Your task to perform on an android device: Open network settings Image 0: 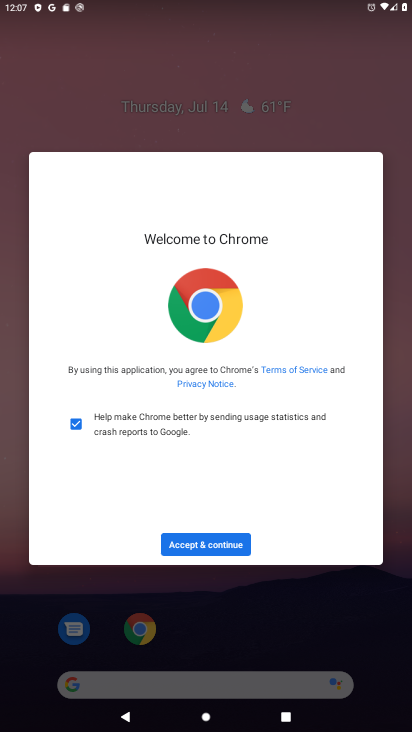
Step 0: press home button
Your task to perform on an android device: Open network settings Image 1: 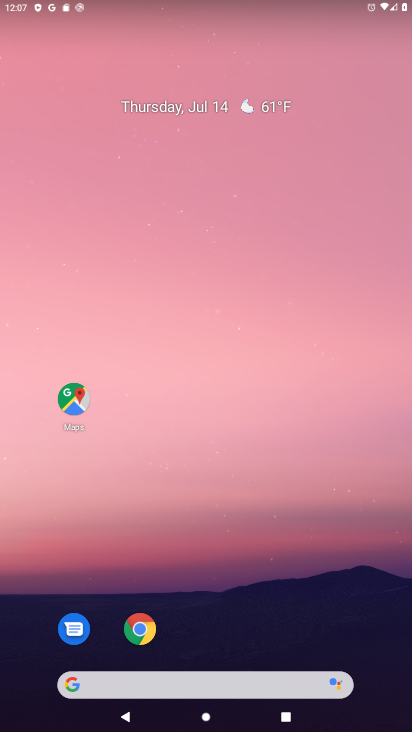
Step 1: drag from (222, 683) to (268, 160)
Your task to perform on an android device: Open network settings Image 2: 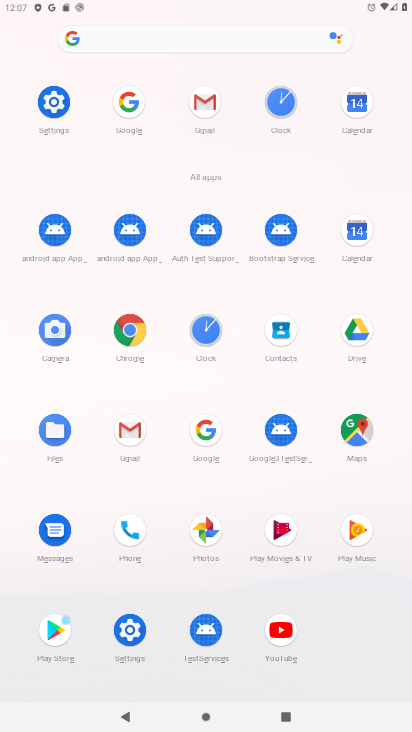
Step 2: click (54, 102)
Your task to perform on an android device: Open network settings Image 3: 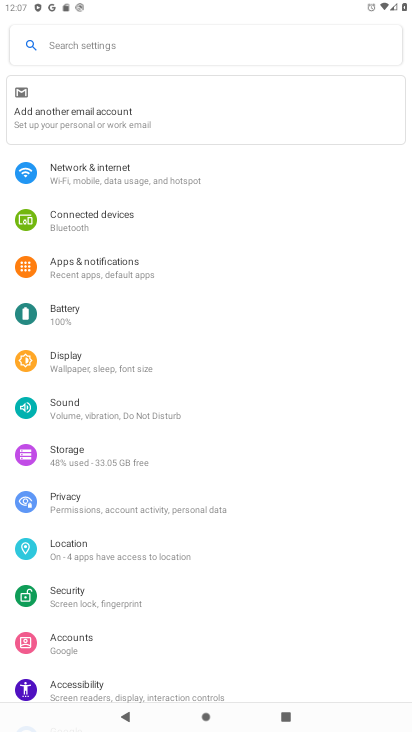
Step 3: click (96, 174)
Your task to perform on an android device: Open network settings Image 4: 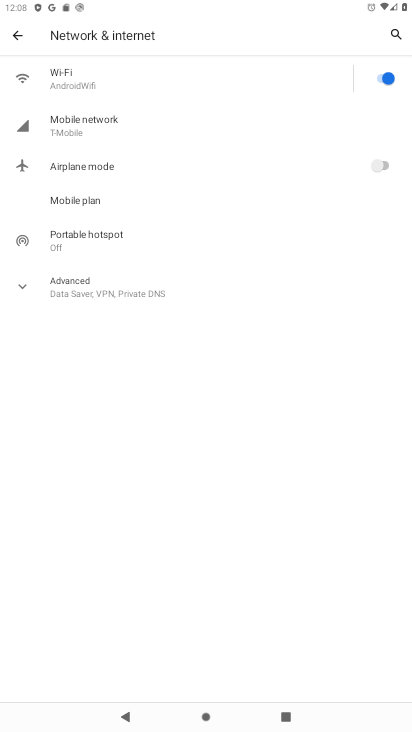
Step 4: task complete